Your task to perform on an android device: Open Google Image 0: 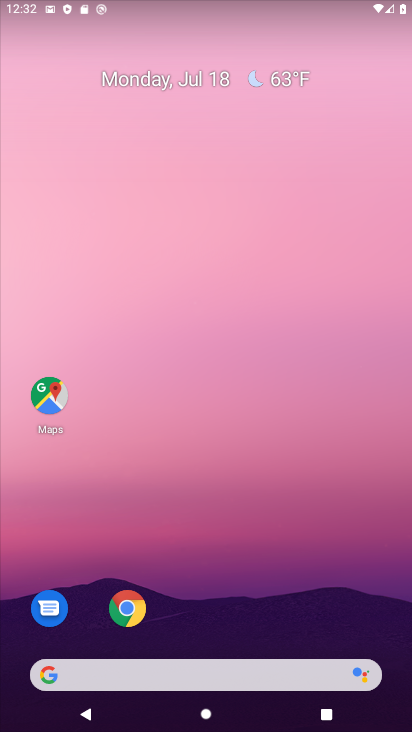
Step 0: drag from (164, 632) to (221, 293)
Your task to perform on an android device: Open Google Image 1: 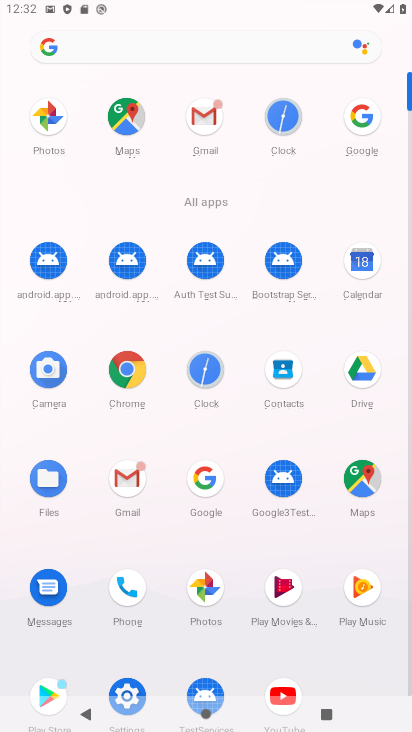
Step 1: click (203, 480)
Your task to perform on an android device: Open Google Image 2: 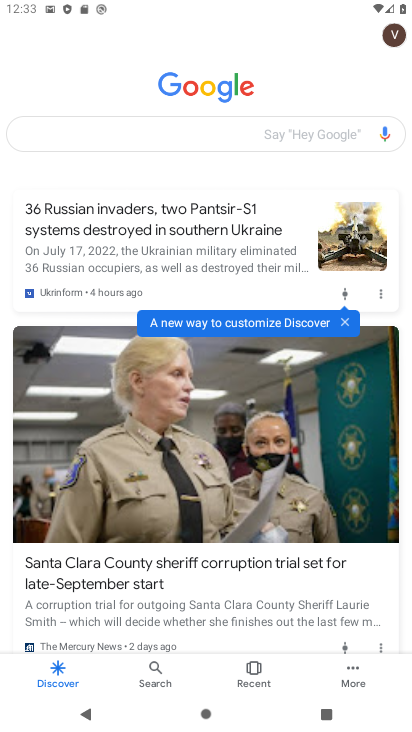
Step 2: task complete